Your task to perform on an android device: turn off airplane mode Image 0: 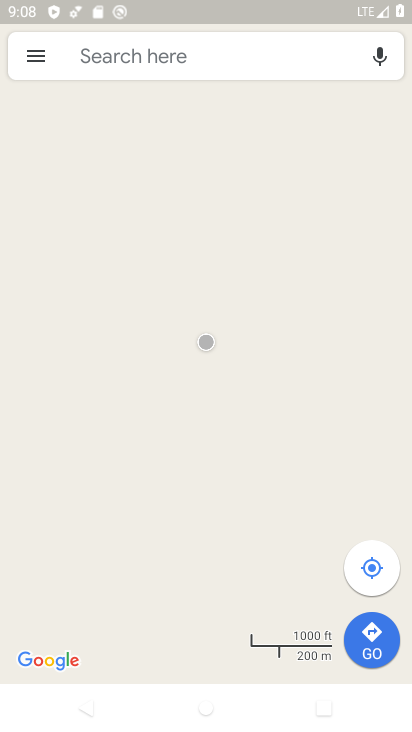
Step 0: press home button
Your task to perform on an android device: turn off airplane mode Image 1: 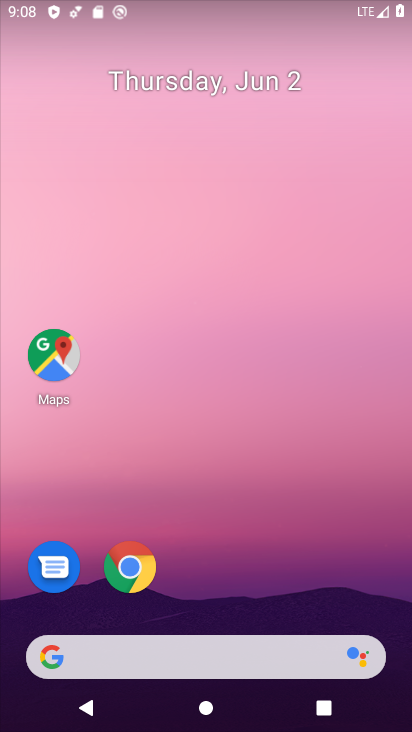
Step 1: drag from (389, 573) to (338, 124)
Your task to perform on an android device: turn off airplane mode Image 2: 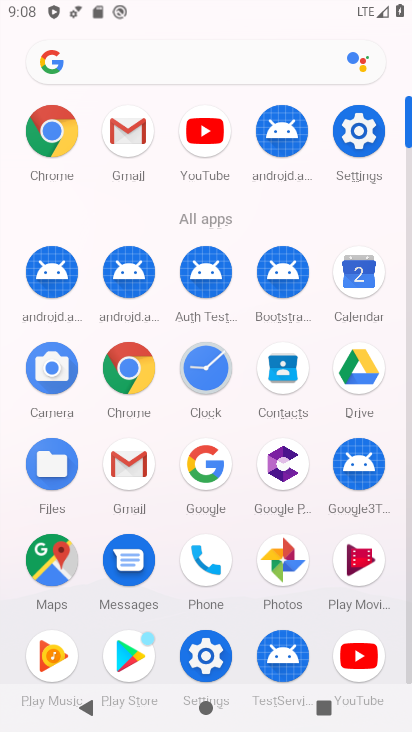
Step 2: click (362, 137)
Your task to perform on an android device: turn off airplane mode Image 3: 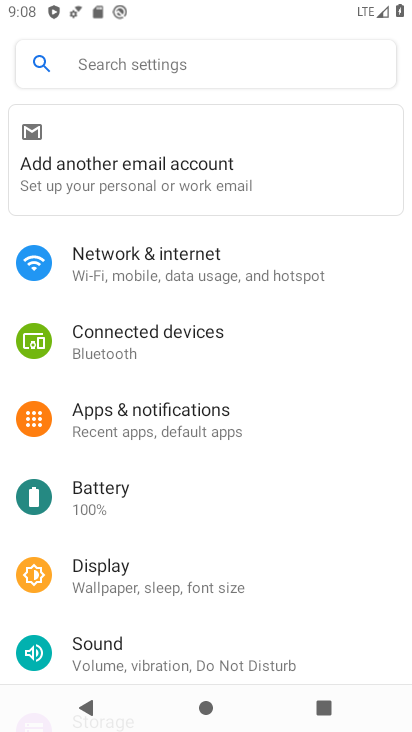
Step 3: click (276, 284)
Your task to perform on an android device: turn off airplane mode Image 4: 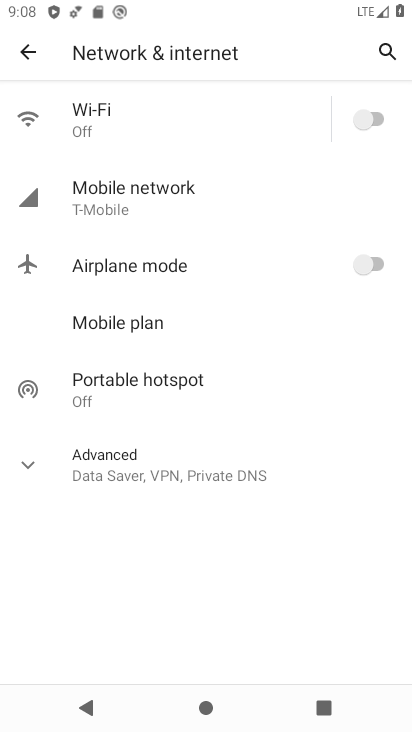
Step 4: task complete